Your task to perform on an android device: toggle improve location accuracy Image 0: 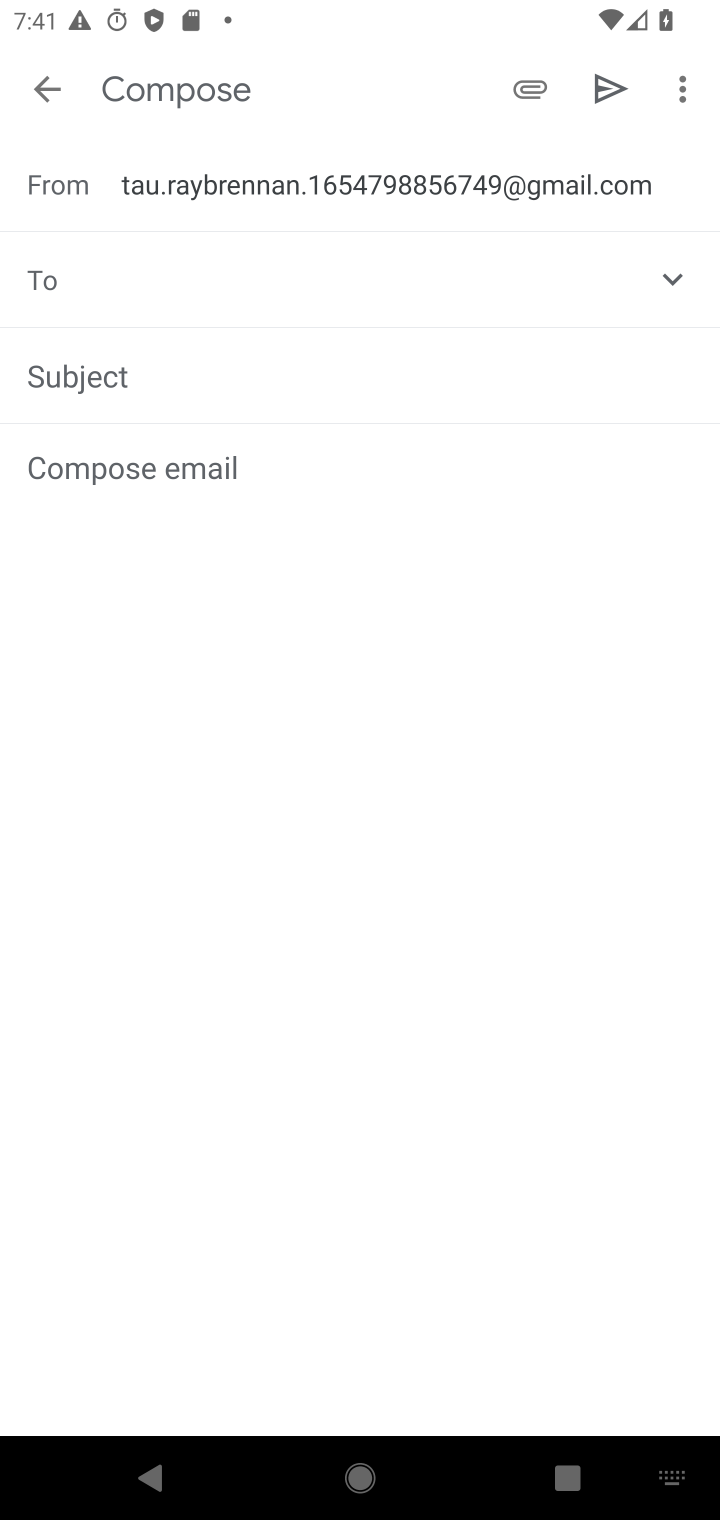
Step 0: press home button
Your task to perform on an android device: toggle improve location accuracy Image 1: 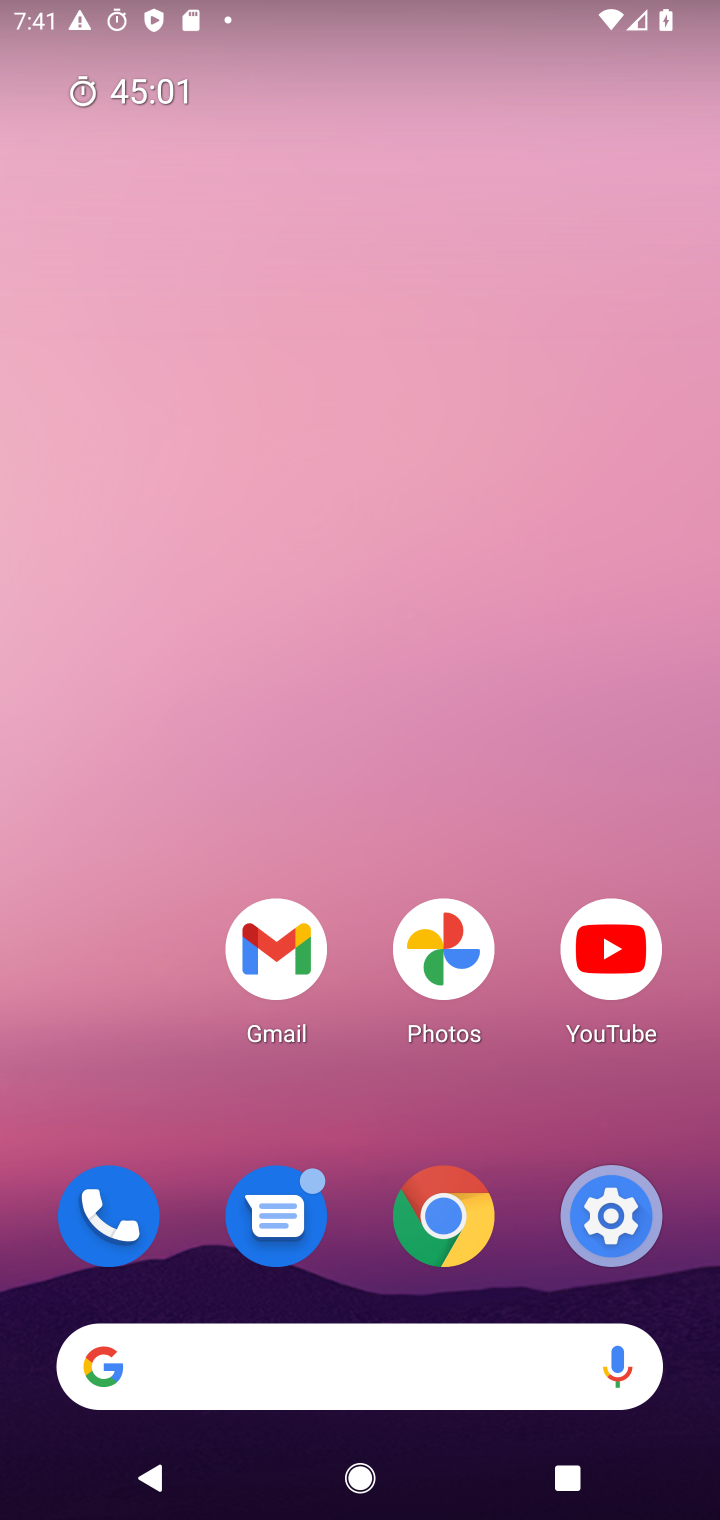
Step 1: drag from (493, 1126) to (684, 522)
Your task to perform on an android device: toggle improve location accuracy Image 2: 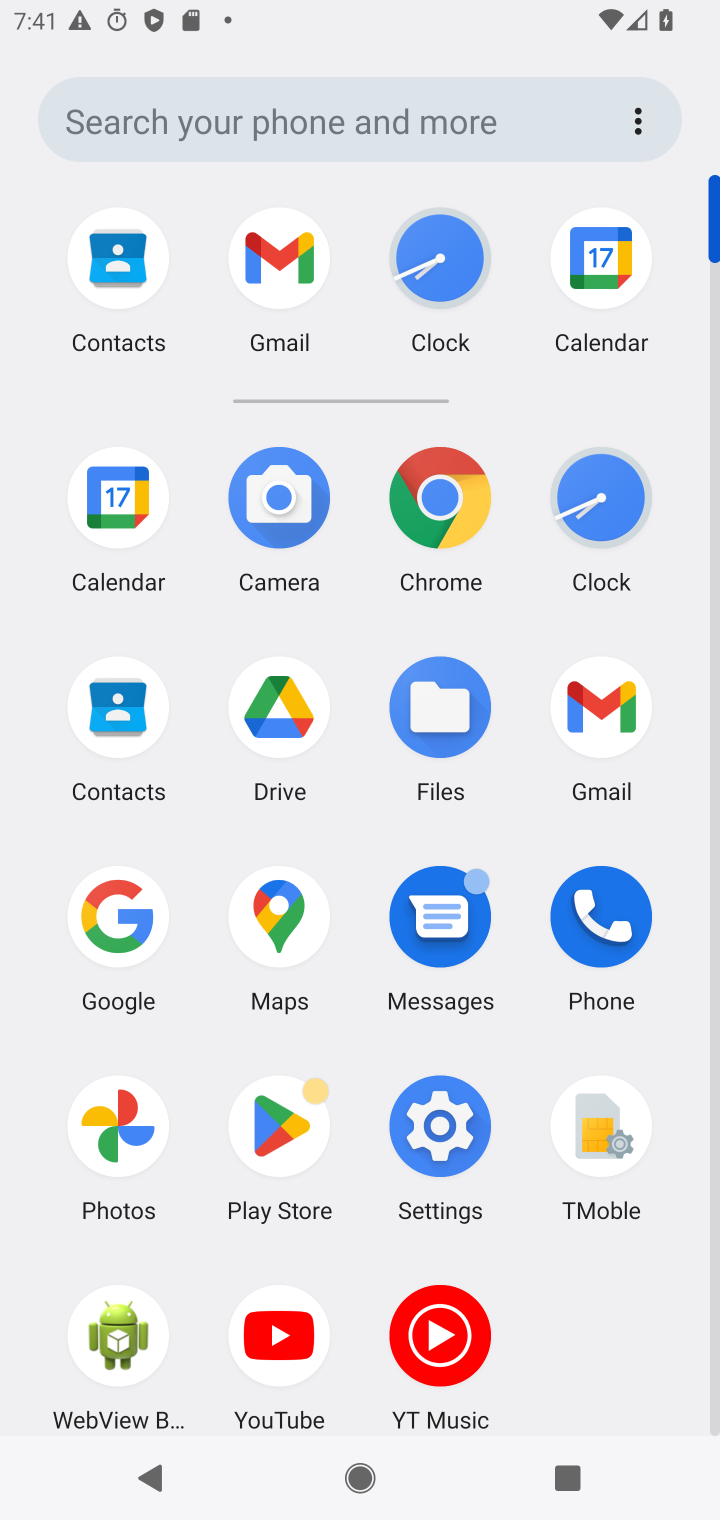
Step 2: click (442, 1119)
Your task to perform on an android device: toggle improve location accuracy Image 3: 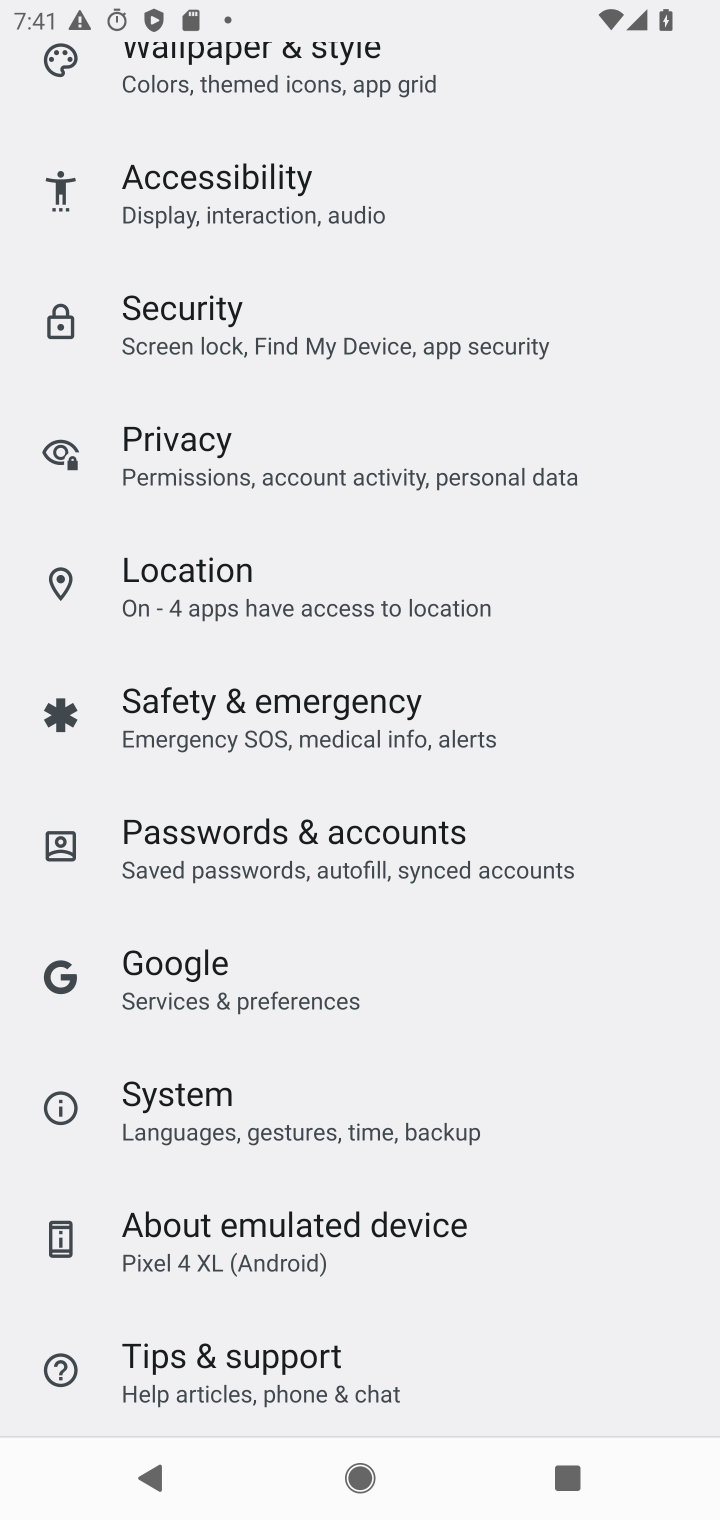
Step 3: click (288, 585)
Your task to perform on an android device: toggle improve location accuracy Image 4: 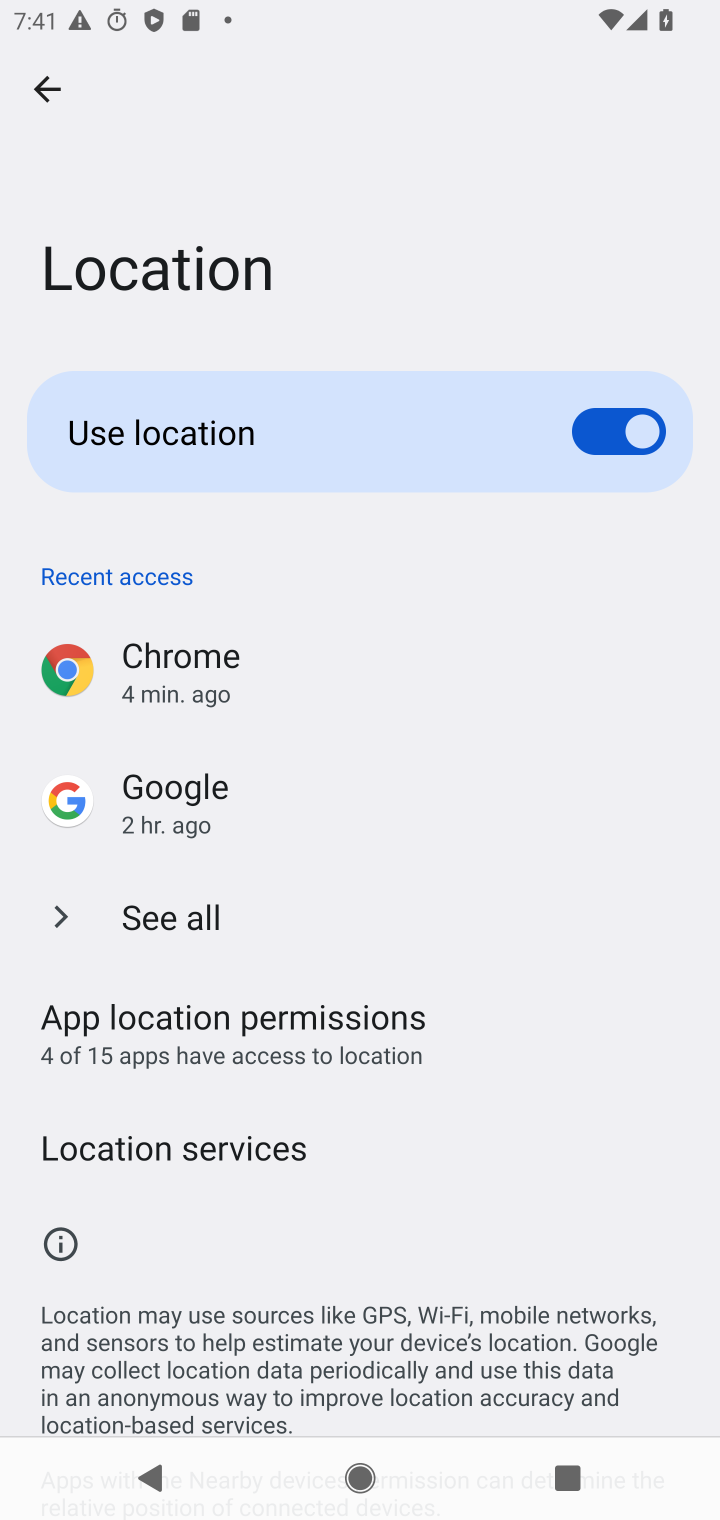
Step 4: click (191, 1137)
Your task to perform on an android device: toggle improve location accuracy Image 5: 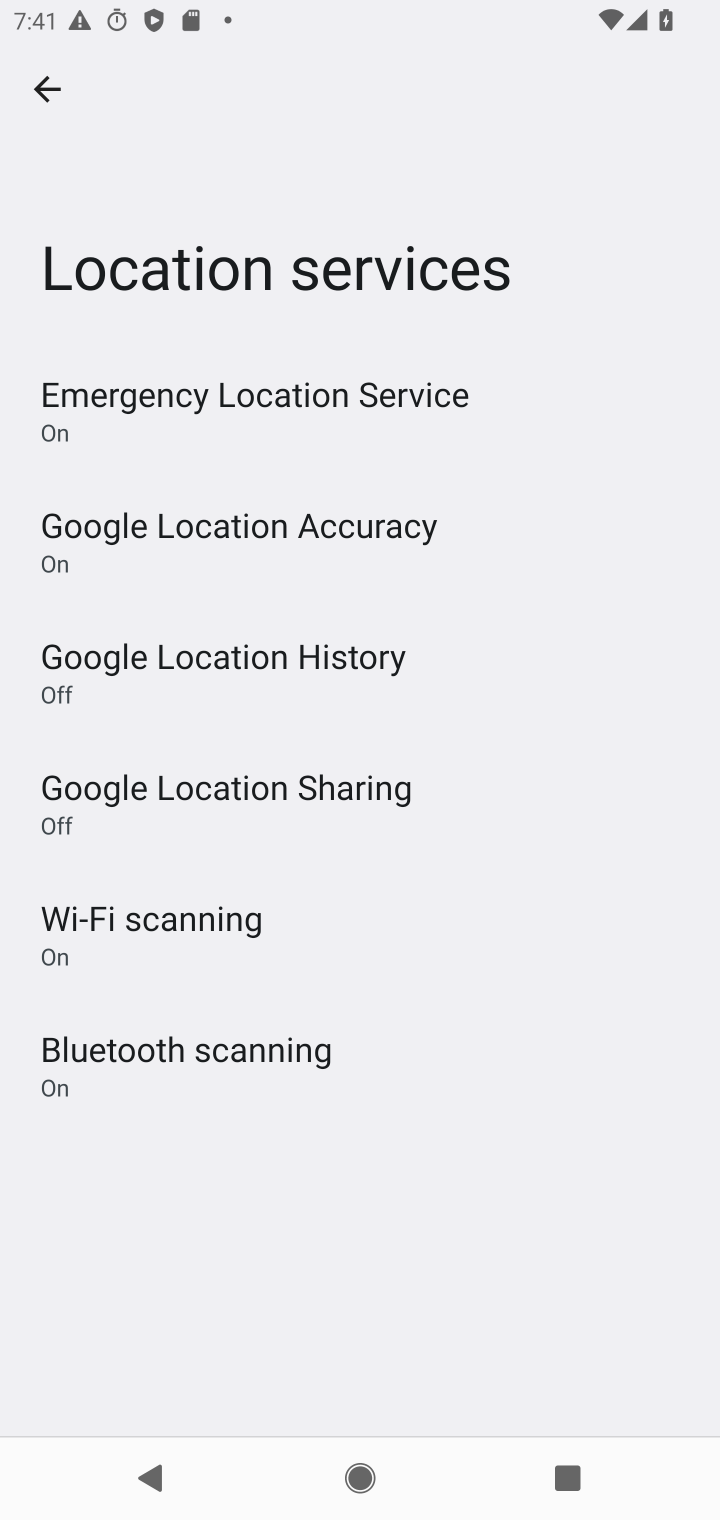
Step 5: click (363, 525)
Your task to perform on an android device: toggle improve location accuracy Image 6: 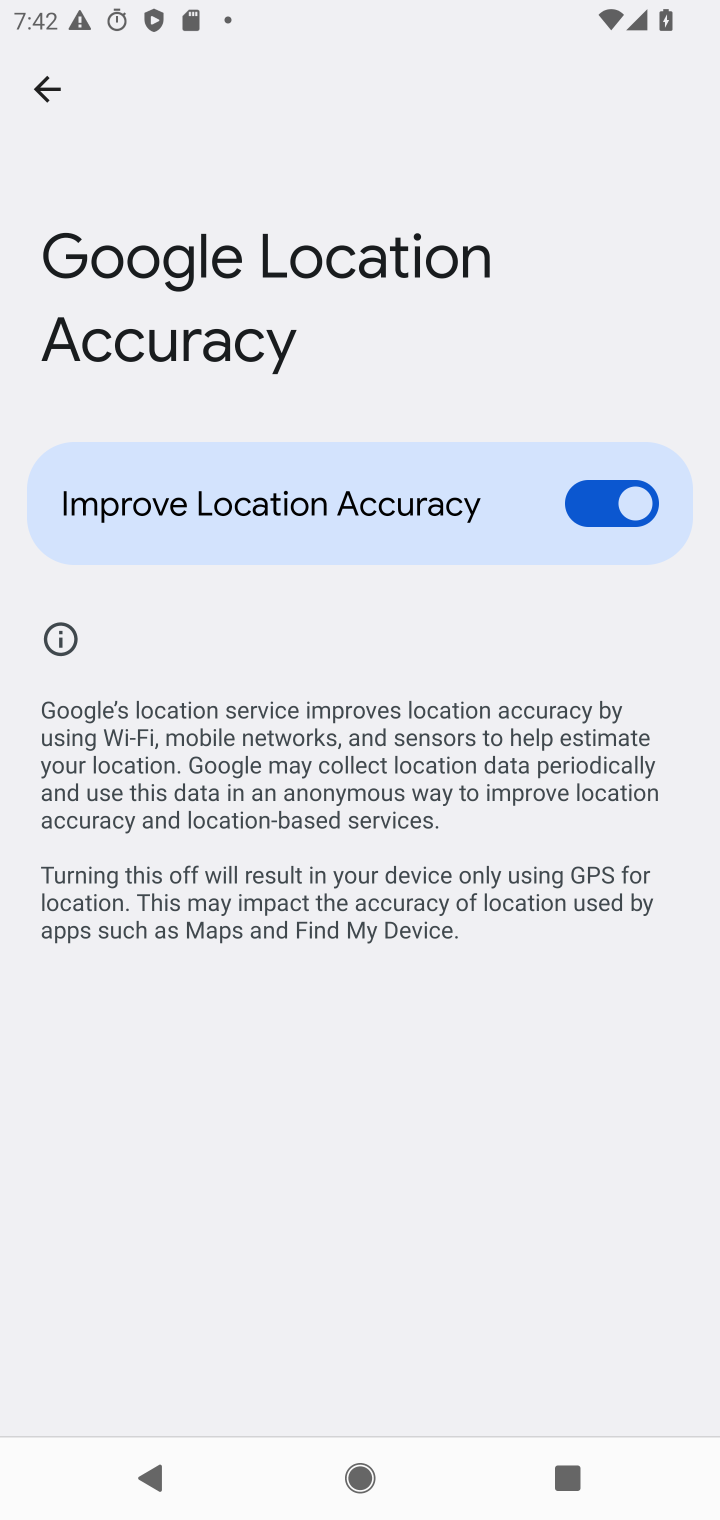
Step 6: task complete